Your task to perform on an android device: check battery use Image 0: 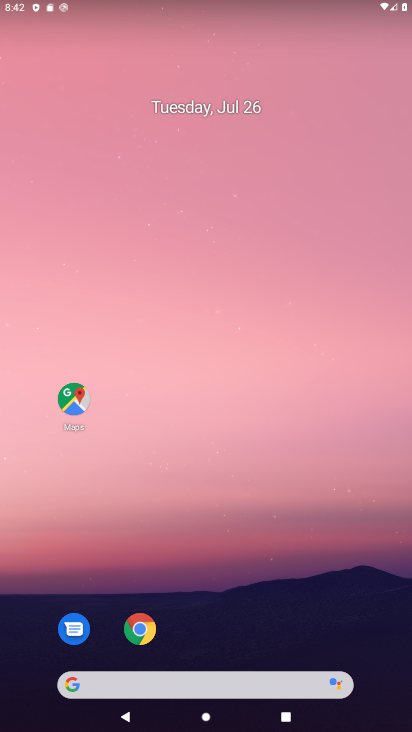
Step 0: drag from (219, 657) to (290, 15)
Your task to perform on an android device: check battery use Image 1: 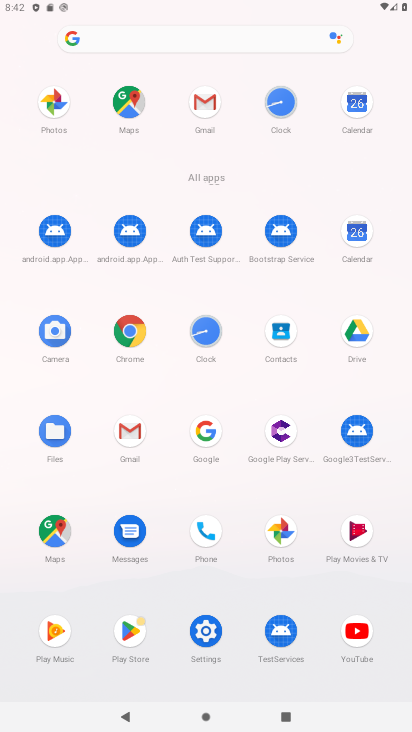
Step 1: click (201, 643)
Your task to perform on an android device: check battery use Image 2: 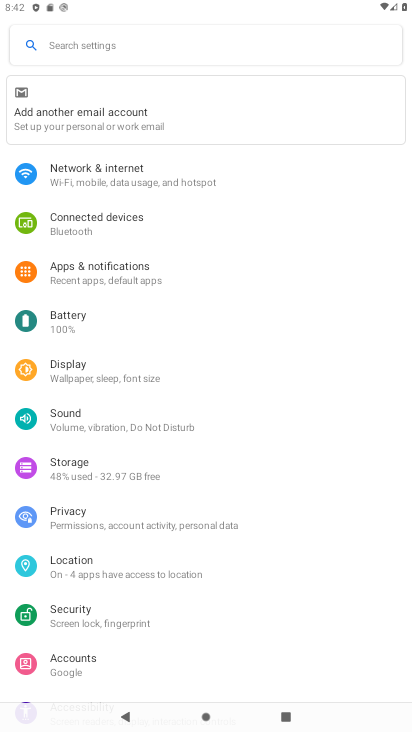
Step 2: click (88, 325)
Your task to perform on an android device: check battery use Image 3: 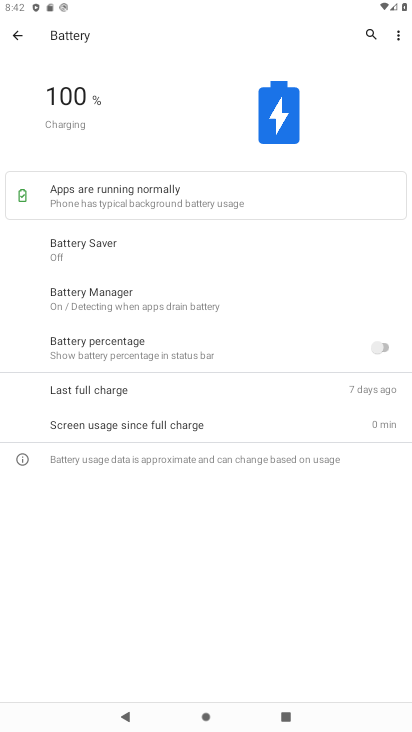
Step 3: click (397, 47)
Your task to perform on an android device: check battery use Image 4: 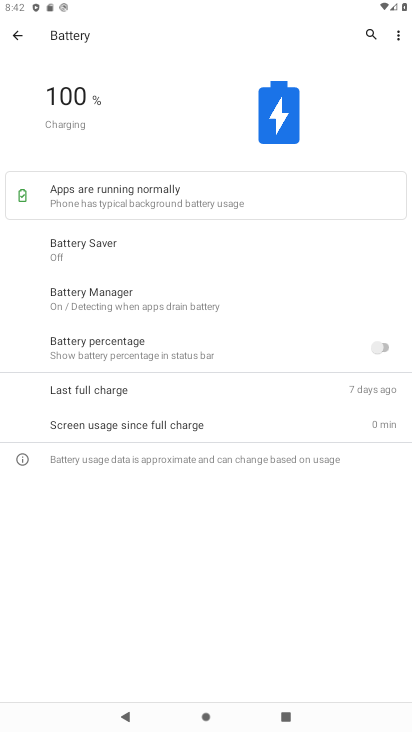
Step 4: click (395, 31)
Your task to perform on an android device: check battery use Image 5: 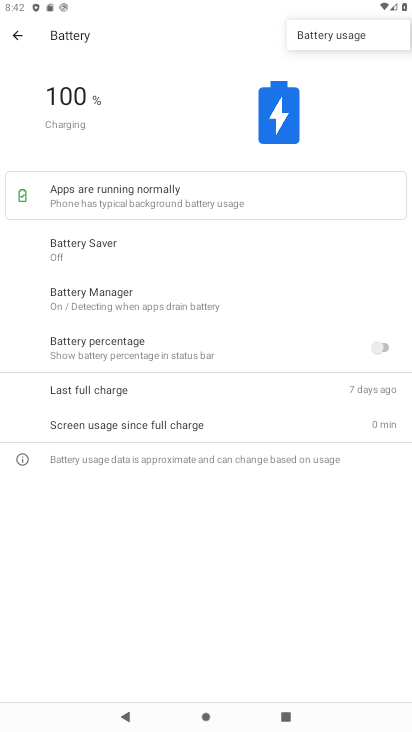
Step 5: click (369, 31)
Your task to perform on an android device: check battery use Image 6: 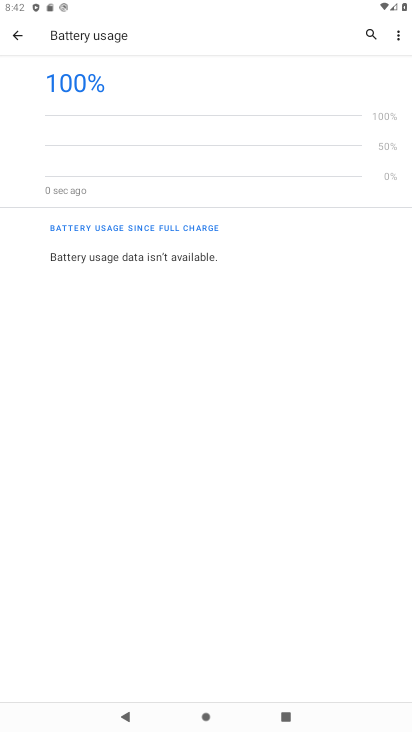
Step 6: task complete